Your task to perform on an android device: Go to eBay Image 0: 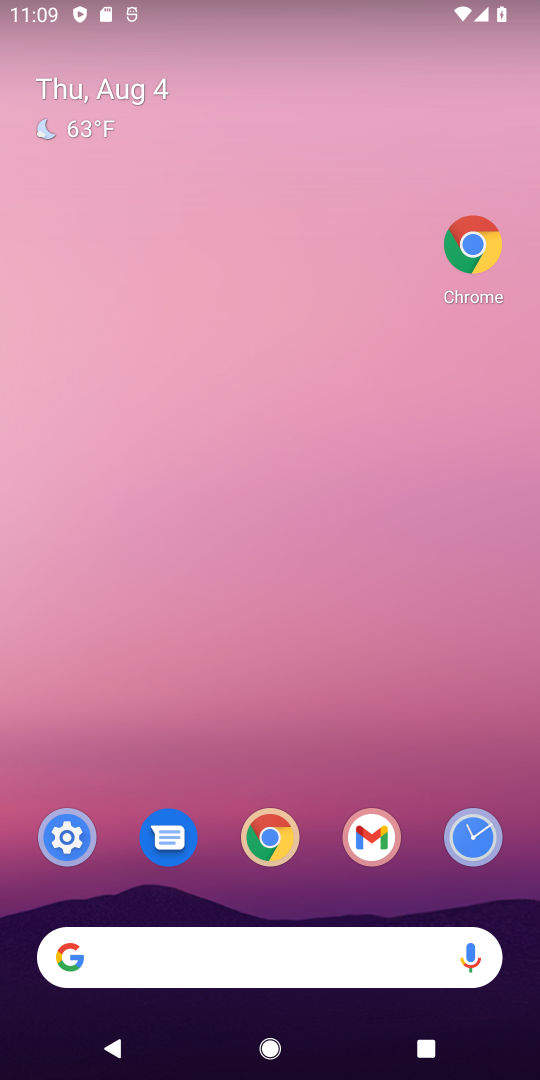
Step 0: press home button
Your task to perform on an android device: Go to eBay Image 1: 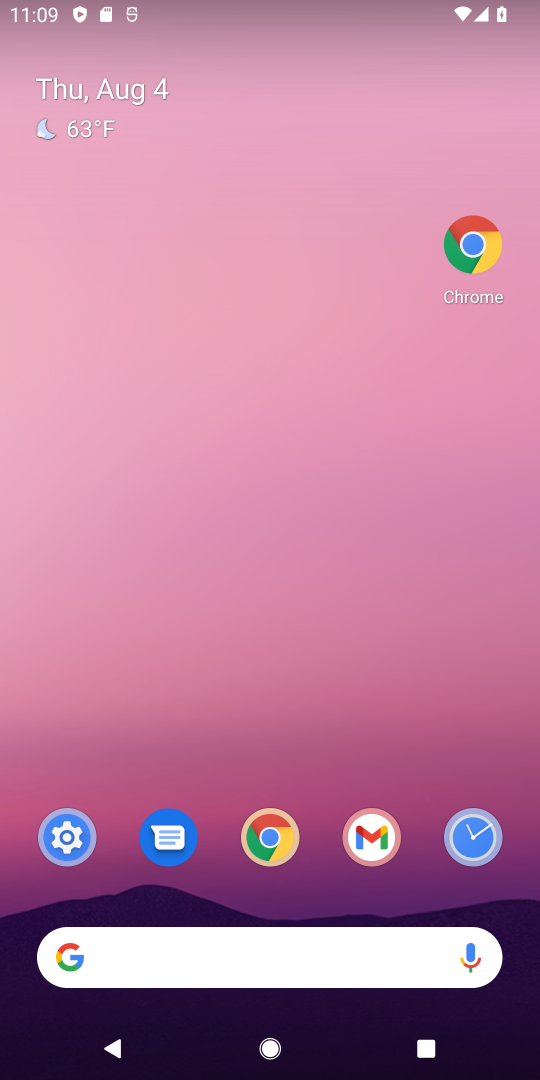
Step 1: drag from (328, 894) to (323, 48)
Your task to perform on an android device: Go to eBay Image 2: 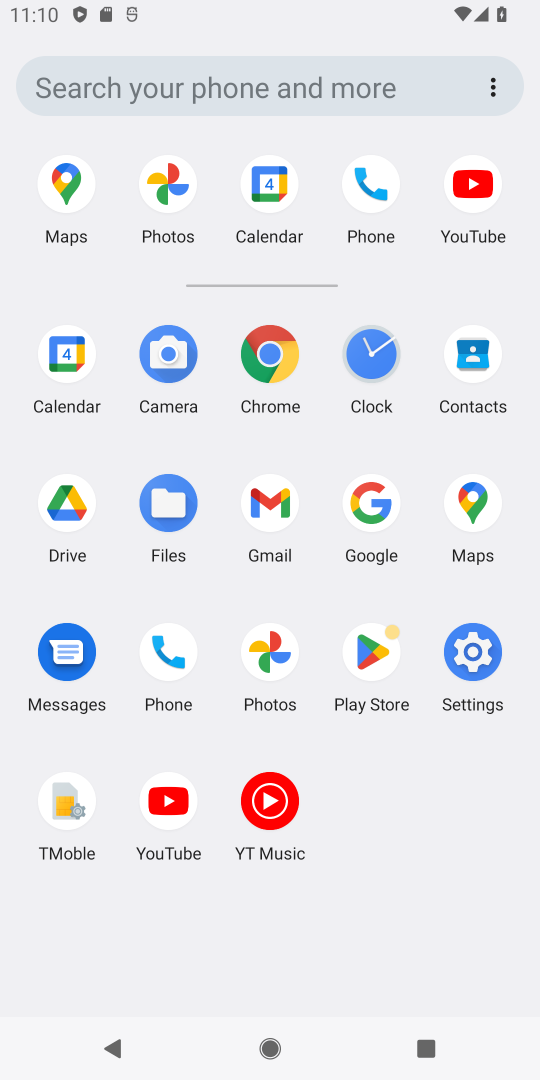
Step 2: click (270, 352)
Your task to perform on an android device: Go to eBay Image 3: 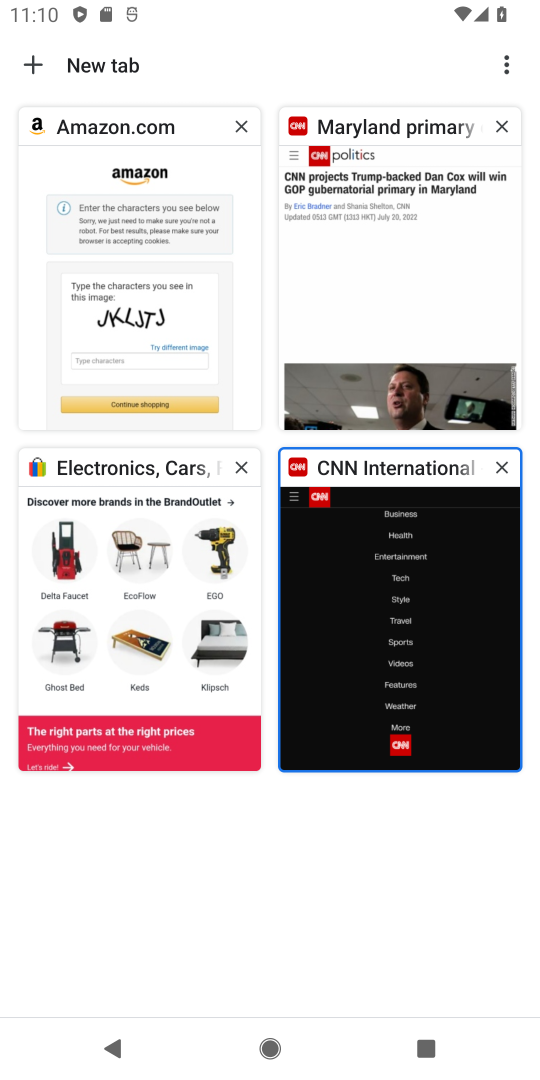
Step 3: click (31, 59)
Your task to perform on an android device: Go to eBay Image 4: 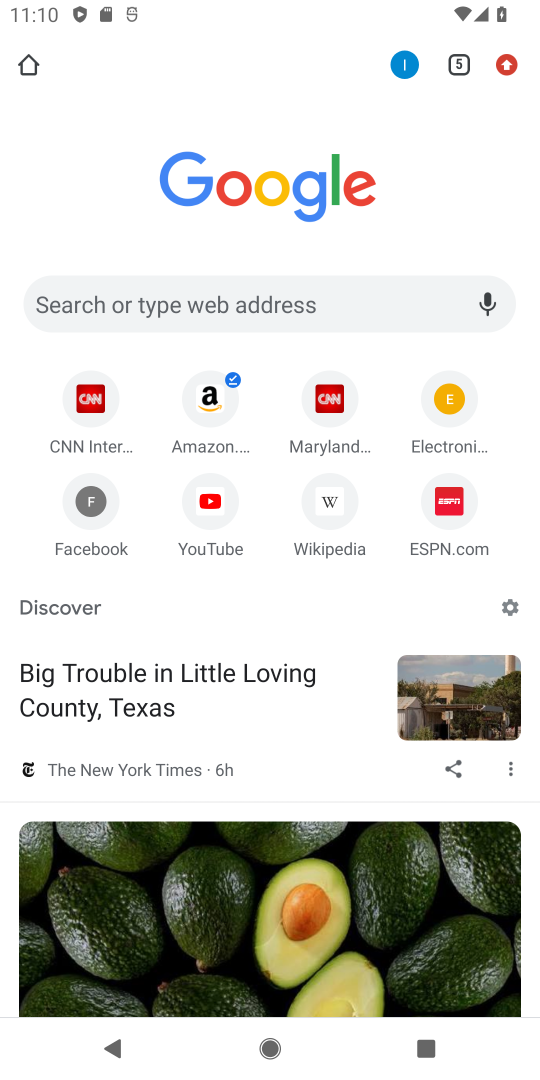
Step 4: click (193, 296)
Your task to perform on an android device: Go to eBay Image 5: 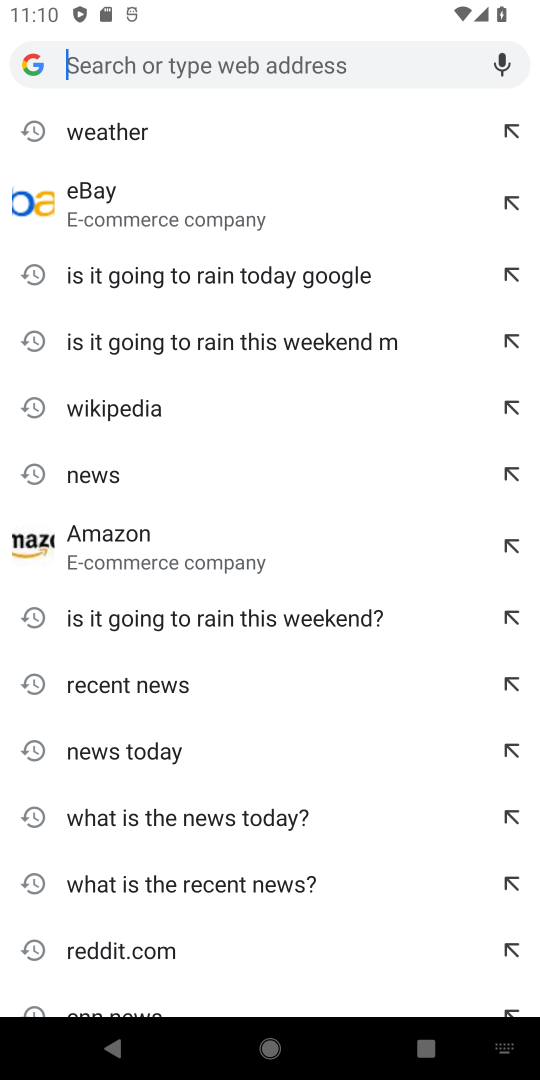
Step 5: click (90, 207)
Your task to perform on an android device: Go to eBay Image 6: 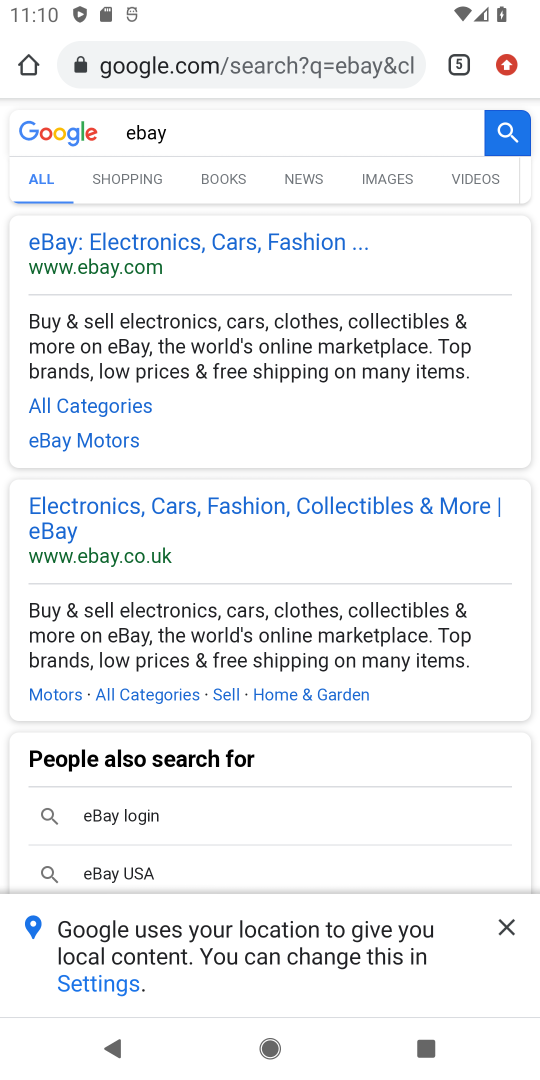
Step 6: click (178, 234)
Your task to perform on an android device: Go to eBay Image 7: 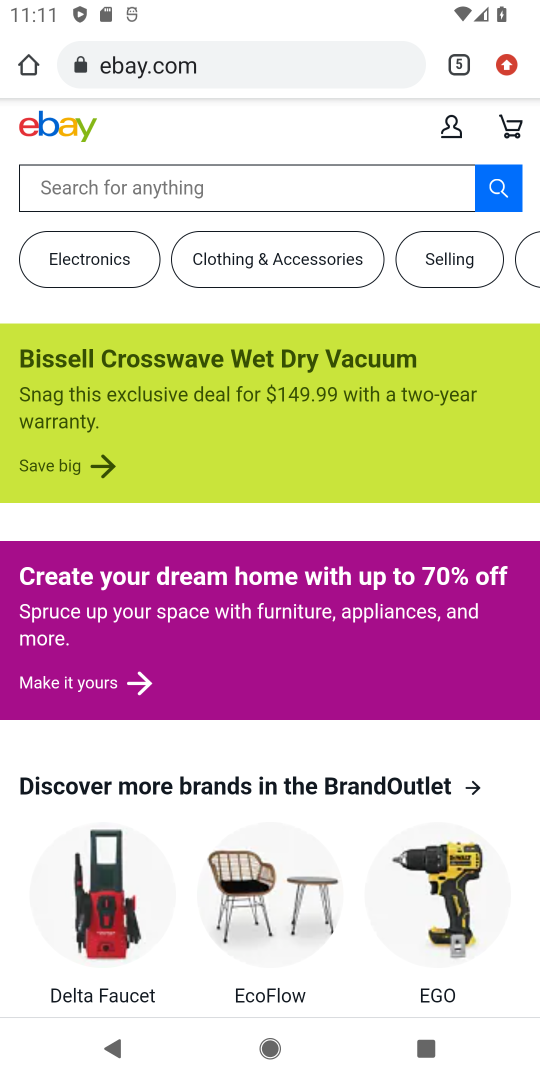
Step 7: task complete